Your task to perform on an android device: change your default location settings in chrome Image 0: 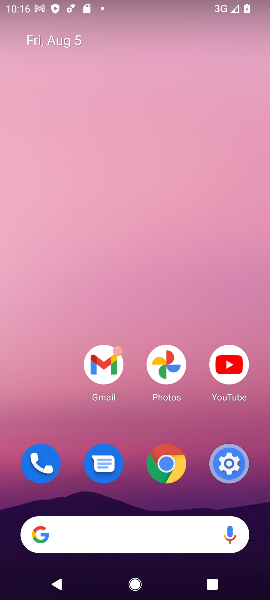
Step 0: drag from (100, 502) to (119, 213)
Your task to perform on an android device: change your default location settings in chrome Image 1: 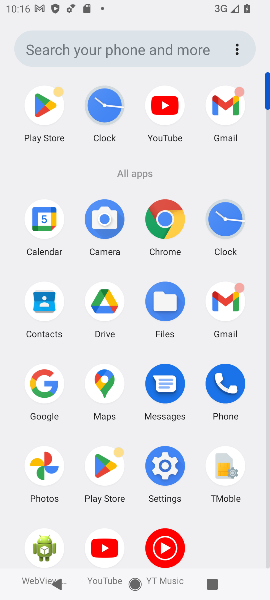
Step 1: click (159, 210)
Your task to perform on an android device: change your default location settings in chrome Image 2: 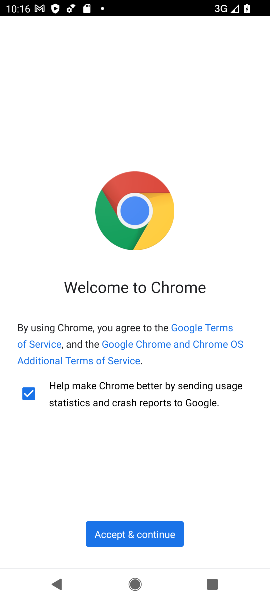
Step 2: click (161, 536)
Your task to perform on an android device: change your default location settings in chrome Image 3: 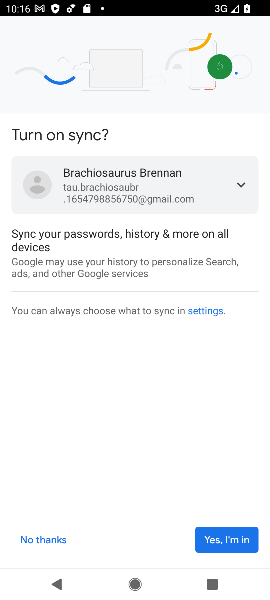
Step 3: click (226, 528)
Your task to perform on an android device: change your default location settings in chrome Image 4: 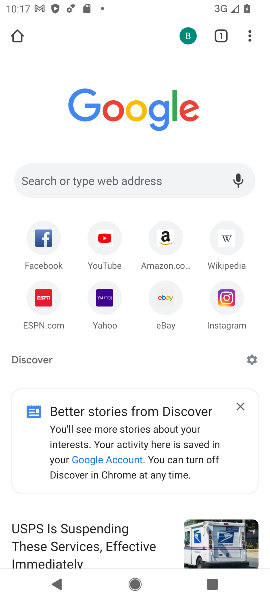
Step 4: click (245, 30)
Your task to perform on an android device: change your default location settings in chrome Image 5: 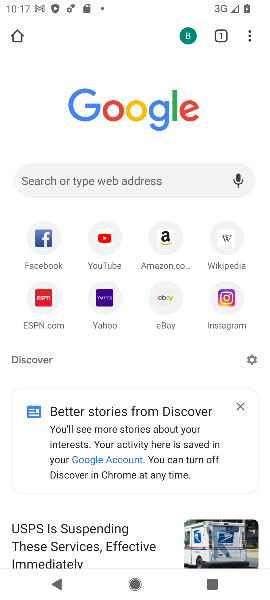
Step 5: click (249, 22)
Your task to perform on an android device: change your default location settings in chrome Image 6: 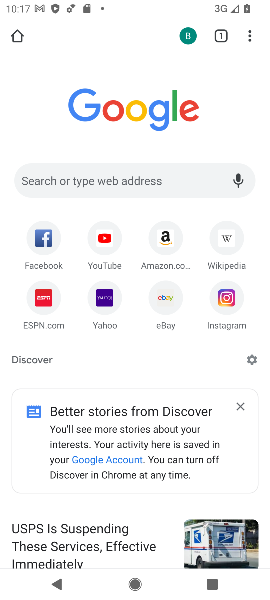
Step 6: click (250, 30)
Your task to perform on an android device: change your default location settings in chrome Image 7: 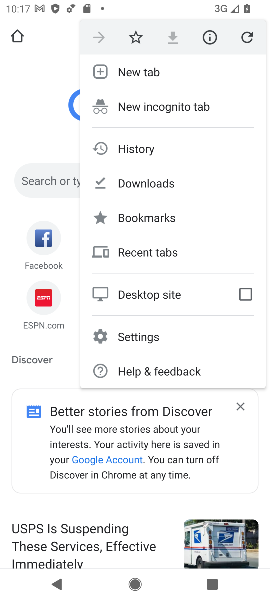
Step 7: click (147, 331)
Your task to perform on an android device: change your default location settings in chrome Image 8: 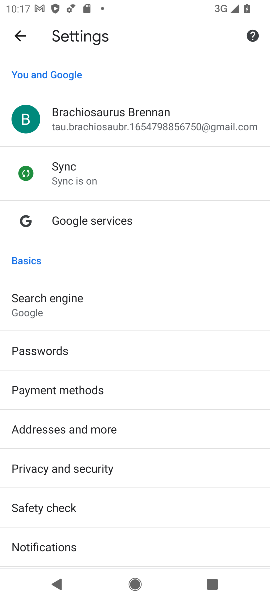
Step 8: drag from (115, 504) to (142, 190)
Your task to perform on an android device: change your default location settings in chrome Image 9: 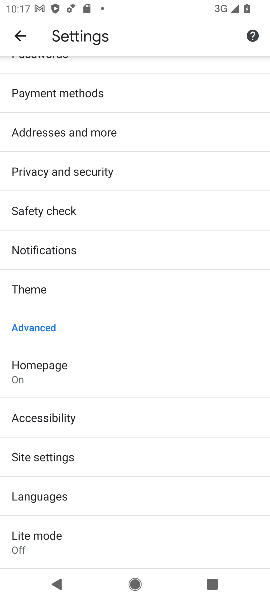
Step 9: click (72, 458)
Your task to perform on an android device: change your default location settings in chrome Image 10: 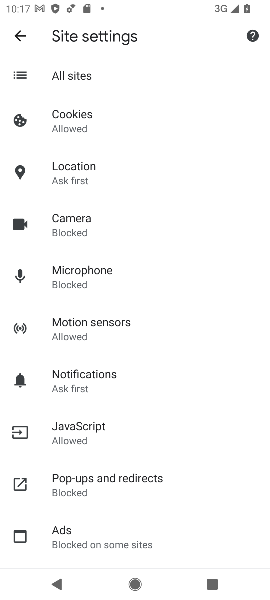
Step 10: click (78, 175)
Your task to perform on an android device: change your default location settings in chrome Image 11: 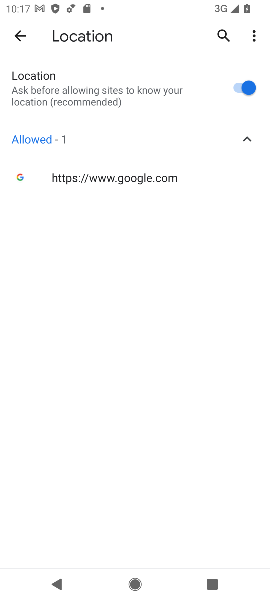
Step 11: click (228, 87)
Your task to perform on an android device: change your default location settings in chrome Image 12: 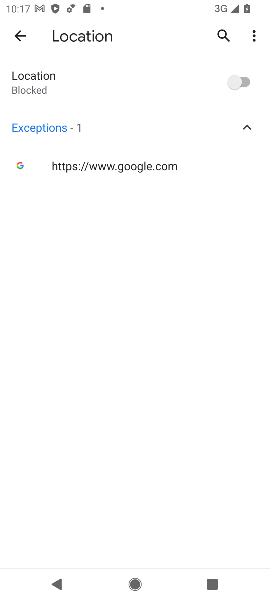
Step 12: task complete